Your task to perform on an android device: Go to Maps Image 0: 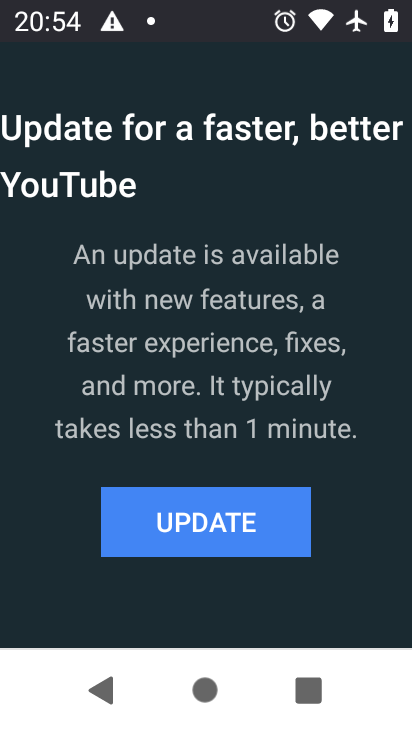
Step 0: press home button
Your task to perform on an android device: Go to Maps Image 1: 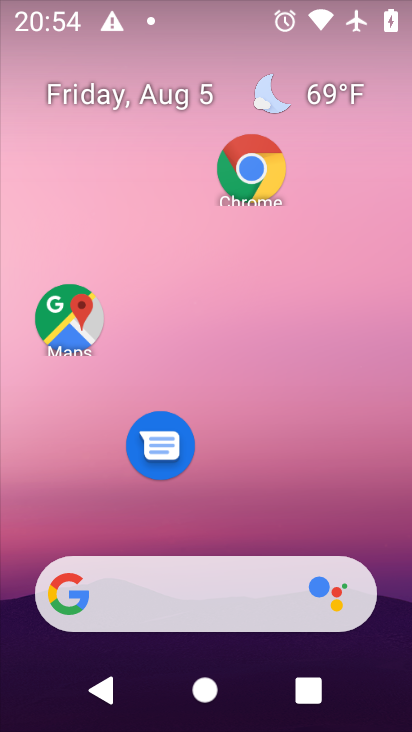
Step 1: click (70, 337)
Your task to perform on an android device: Go to Maps Image 2: 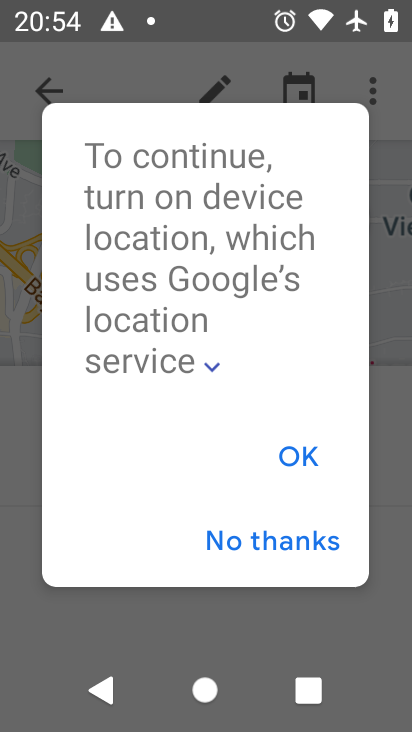
Step 2: task complete